Your task to perform on an android device: open app "Truecaller" (install if not already installed) Image 0: 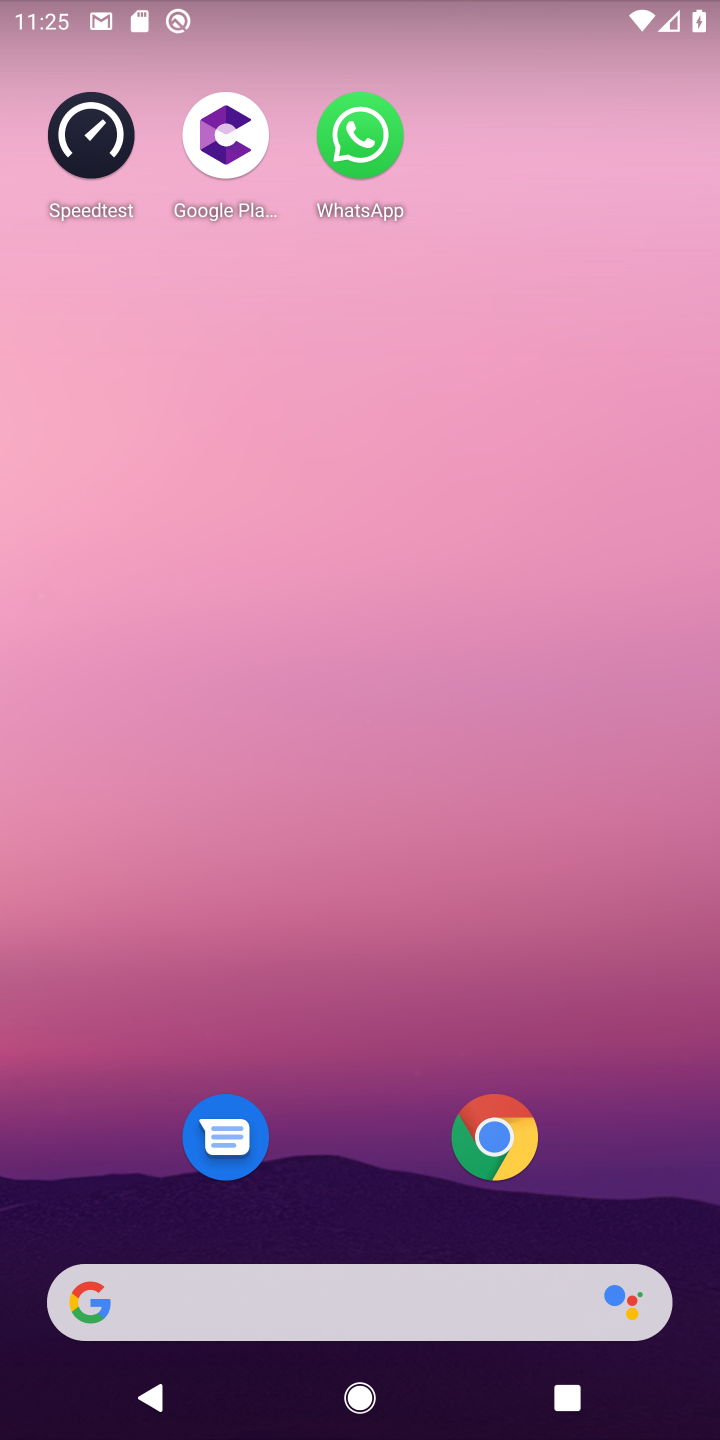
Step 0: drag from (662, 1094) to (519, 171)
Your task to perform on an android device: open app "Truecaller" (install if not already installed) Image 1: 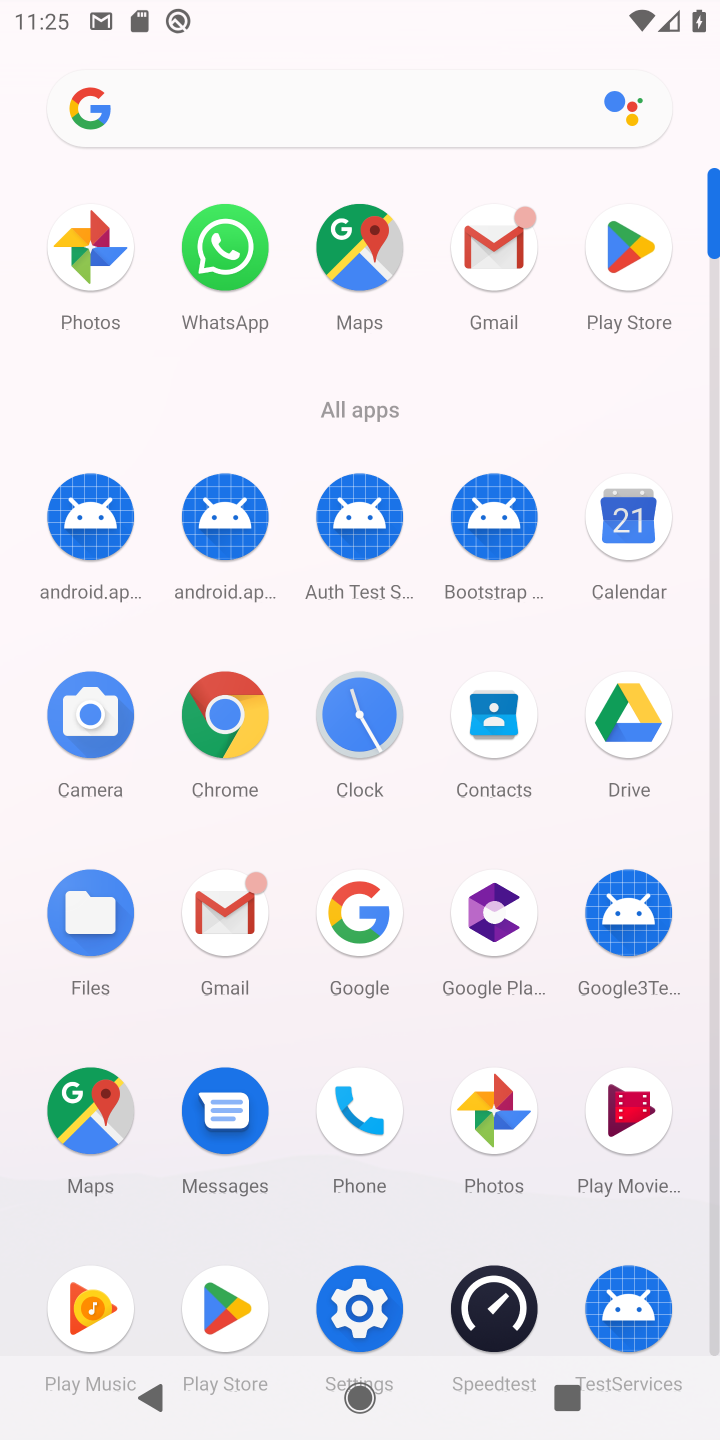
Step 1: click (220, 1307)
Your task to perform on an android device: open app "Truecaller" (install if not already installed) Image 2: 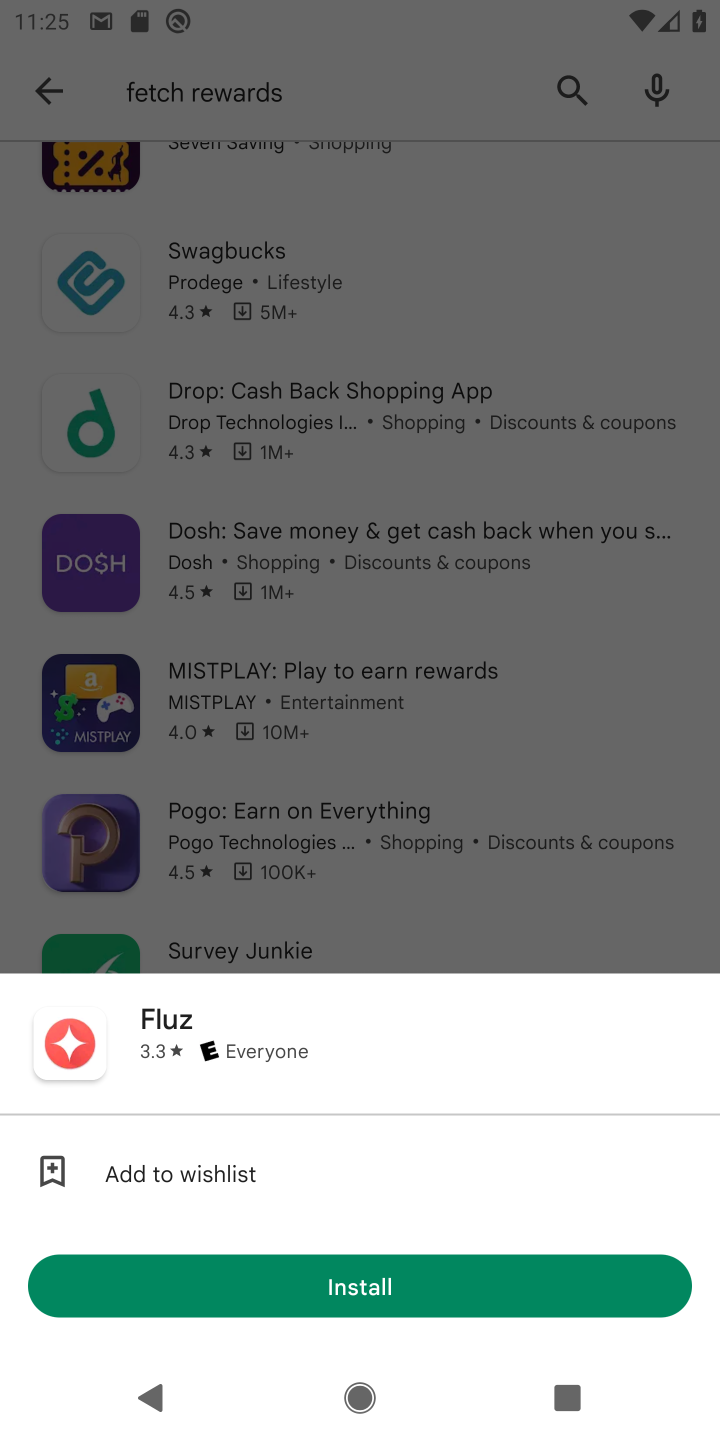
Step 2: click (579, 78)
Your task to perform on an android device: open app "Truecaller" (install if not already installed) Image 3: 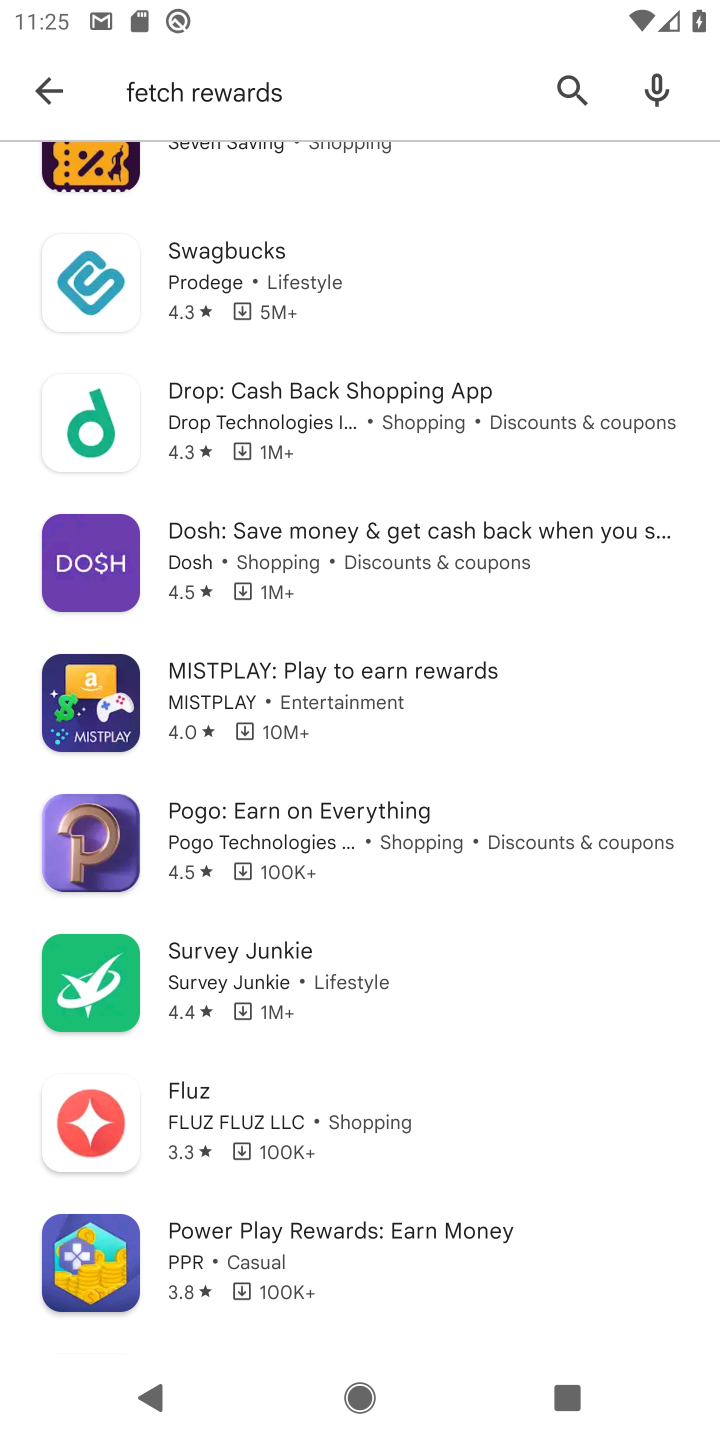
Step 3: click (571, 86)
Your task to perform on an android device: open app "Truecaller" (install if not already installed) Image 4: 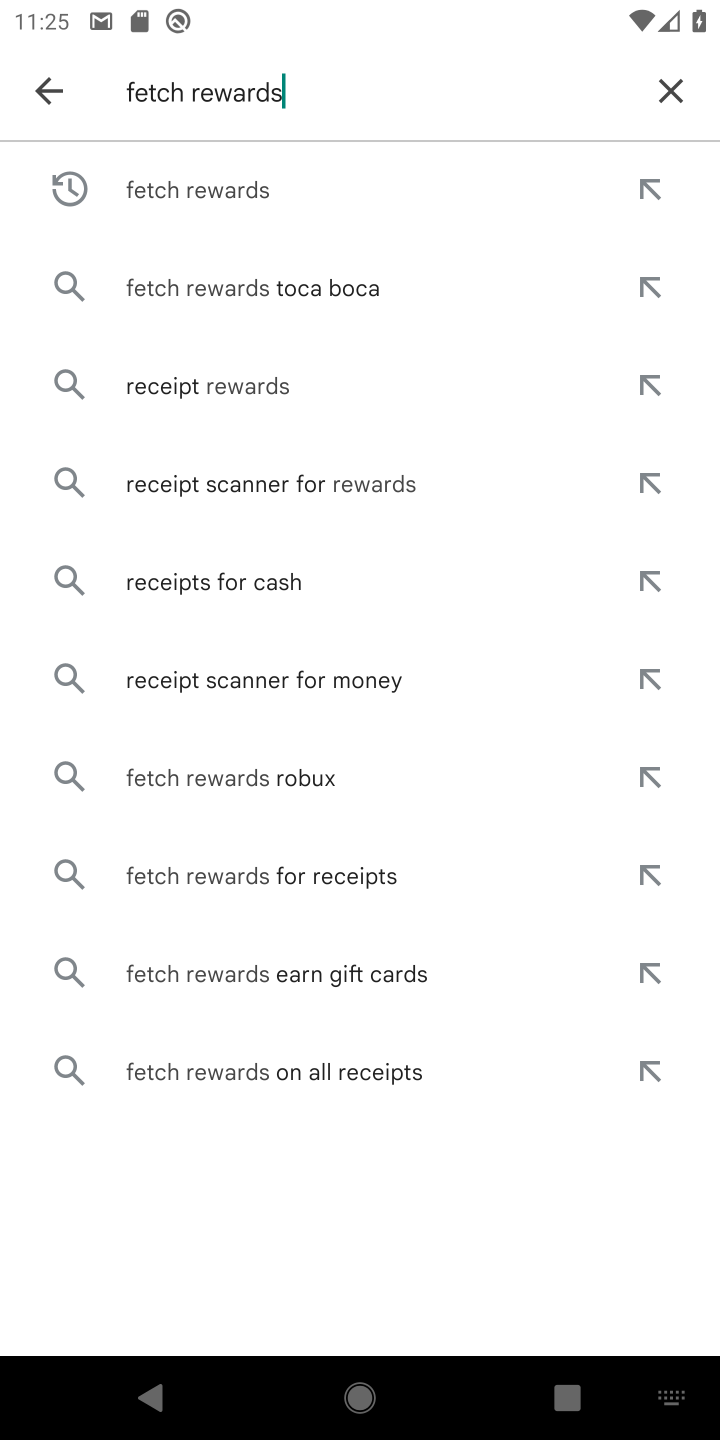
Step 4: click (678, 90)
Your task to perform on an android device: open app "Truecaller" (install if not already installed) Image 5: 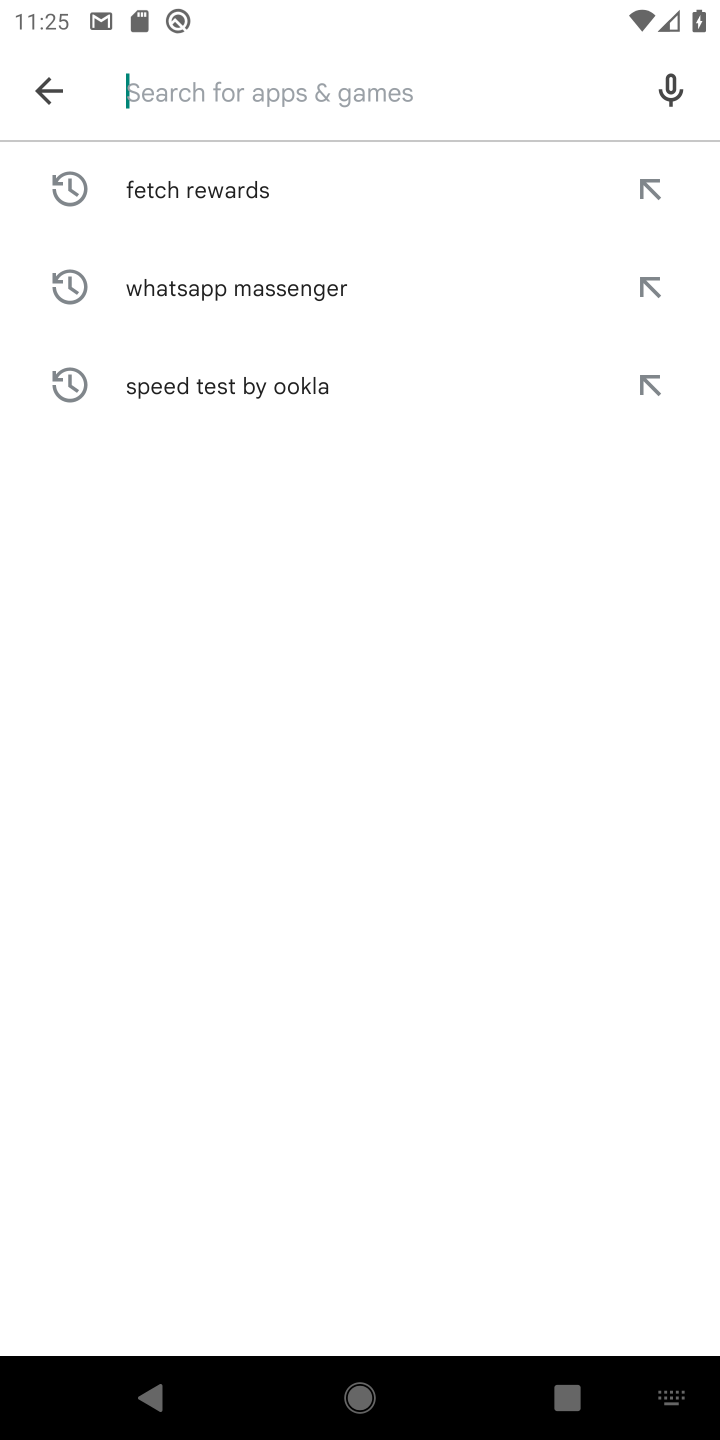
Step 5: type "Truecaller"
Your task to perform on an android device: open app "Truecaller" (install if not already installed) Image 6: 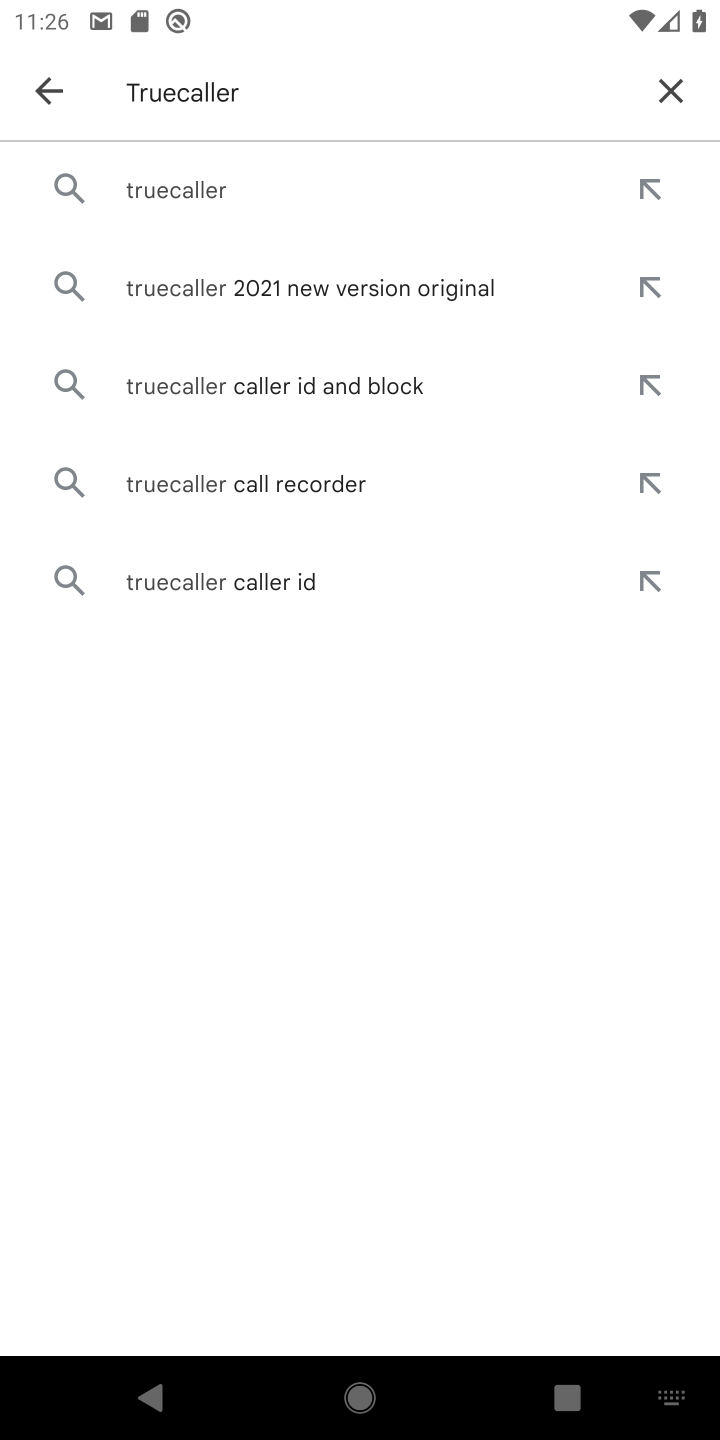
Step 6: click (187, 194)
Your task to perform on an android device: open app "Truecaller" (install if not already installed) Image 7: 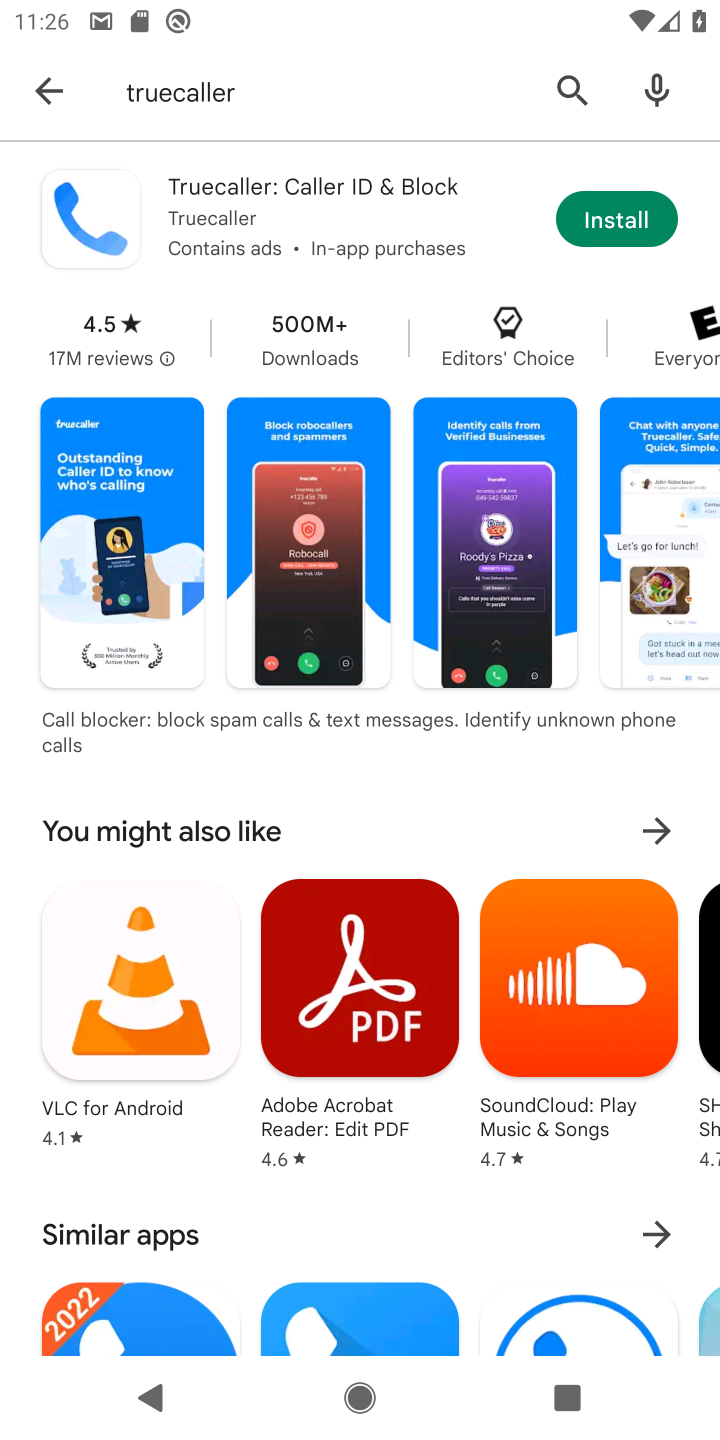
Step 7: click (609, 214)
Your task to perform on an android device: open app "Truecaller" (install if not already installed) Image 8: 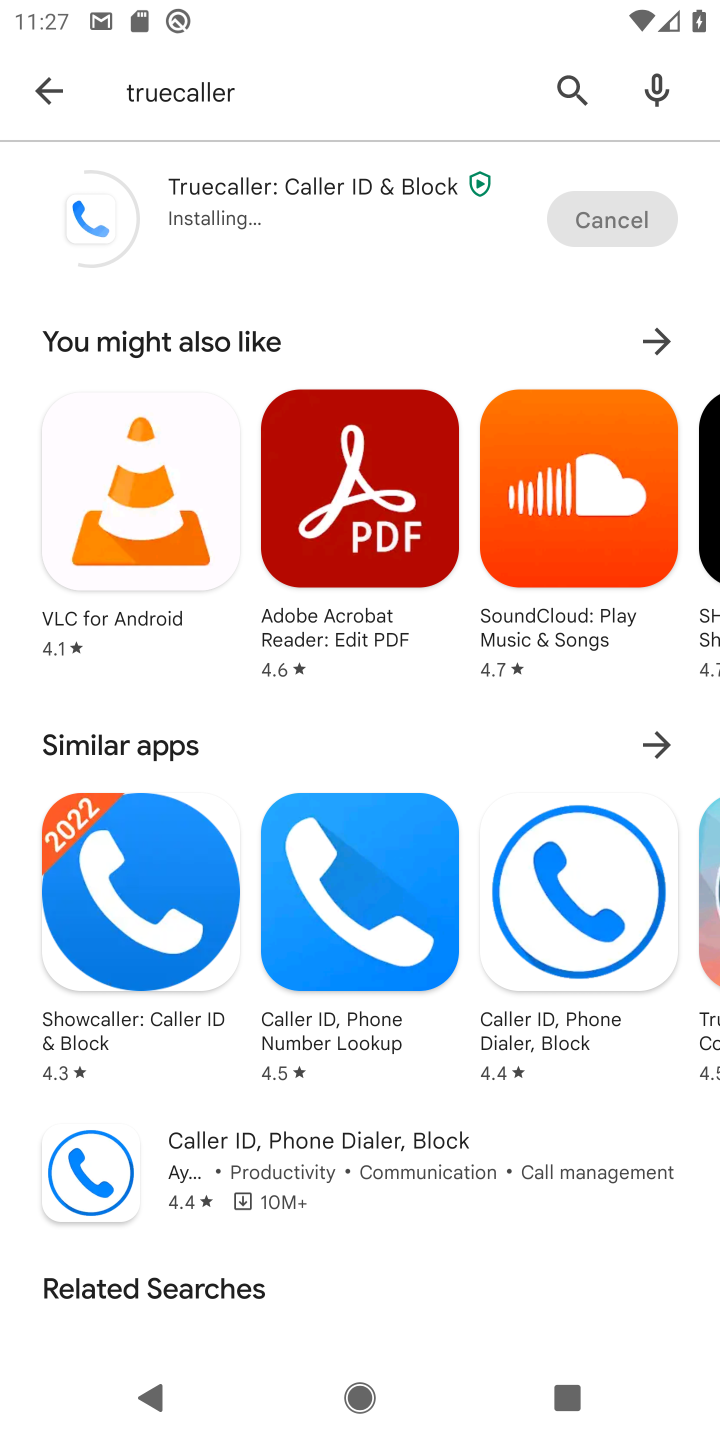
Step 8: click (198, 210)
Your task to perform on an android device: open app "Truecaller" (install if not already installed) Image 9: 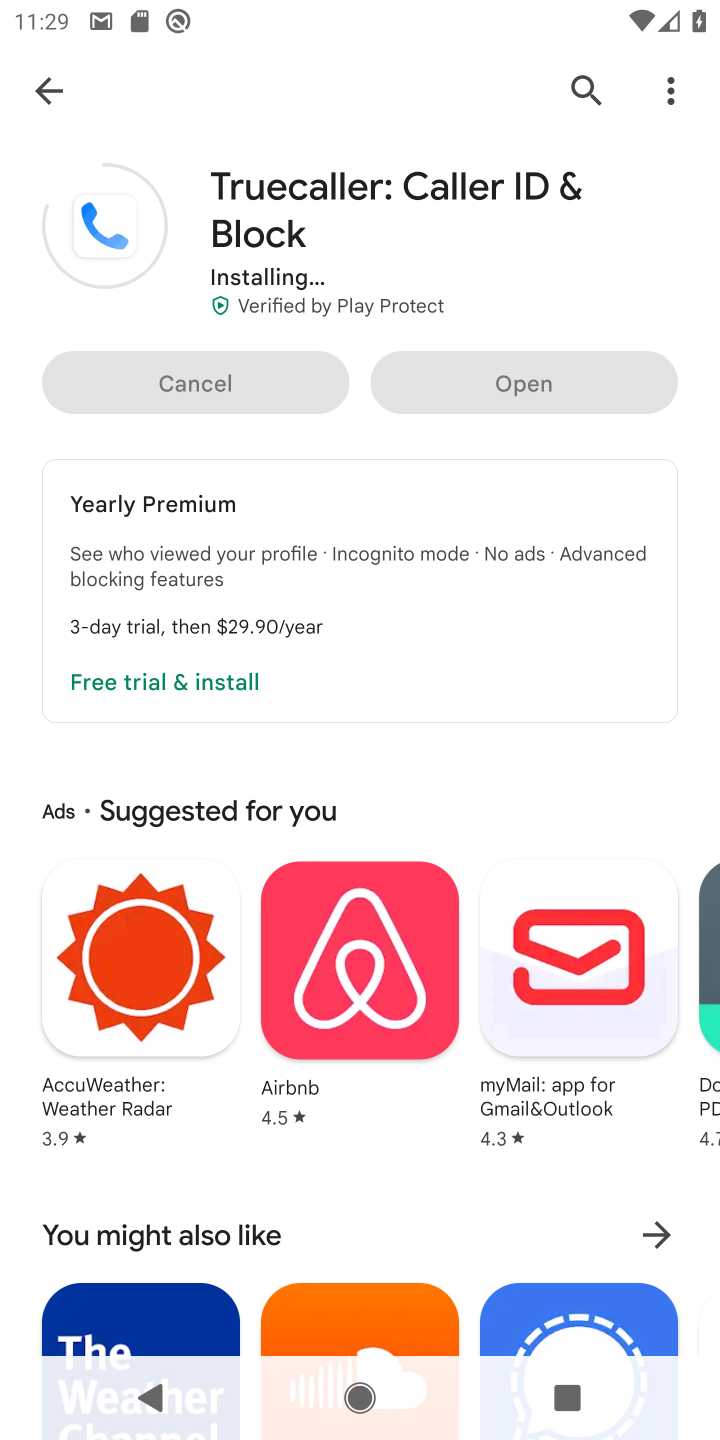
Step 9: click (331, 468)
Your task to perform on an android device: open app "Truecaller" (install if not already installed) Image 10: 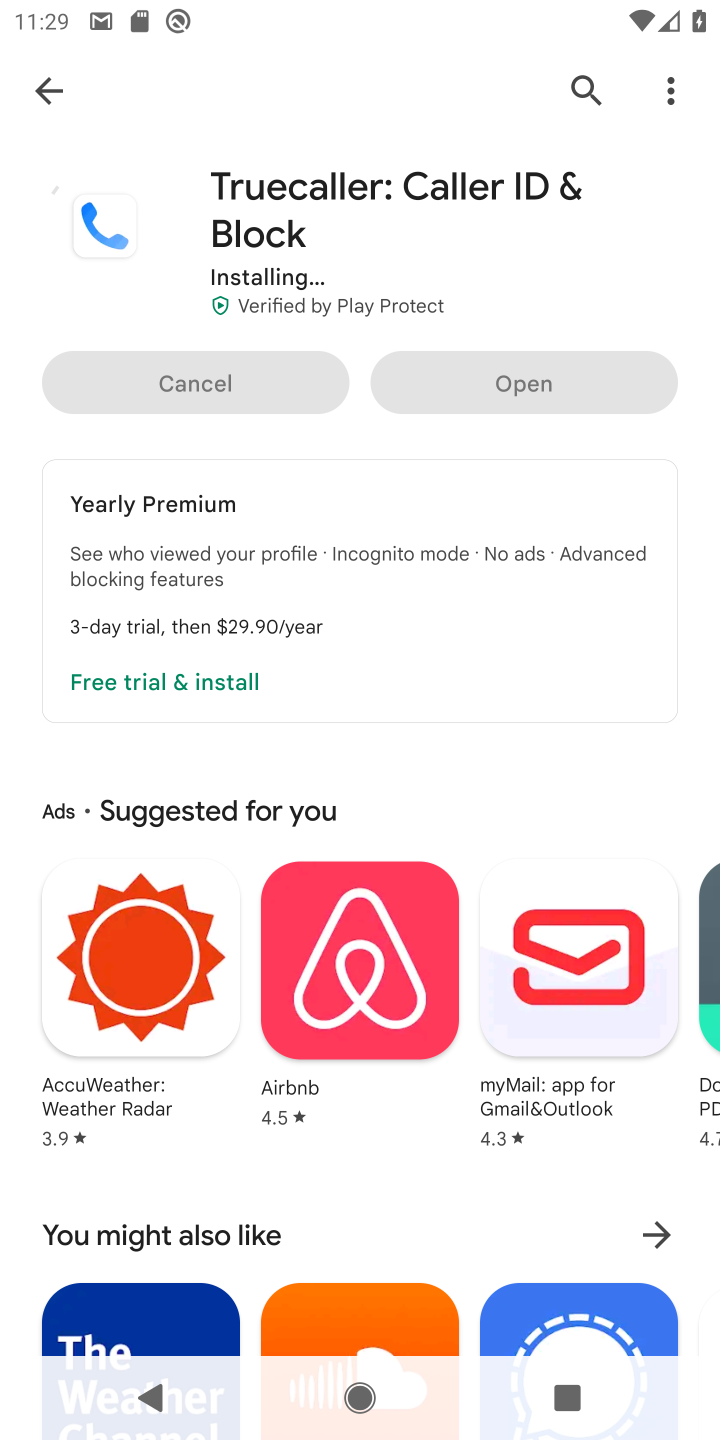
Step 10: drag from (382, 534) to (360, 708)
Your task to perform on an android device: open app "Truecaller" (install if not already installed) Image 11: 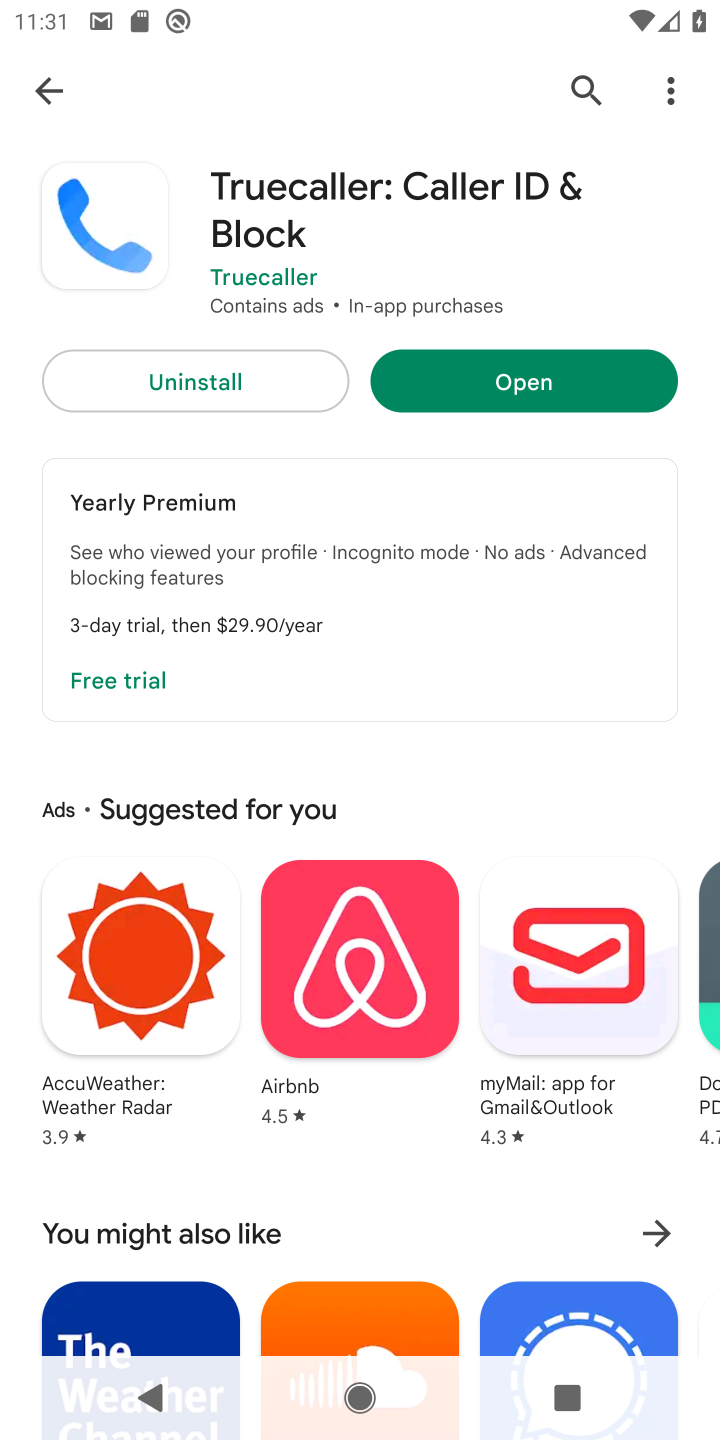
Step 11: click (520, 387)
Your task to perform on an android device: open app "Truecaller" (install if not already installed) Image 12: 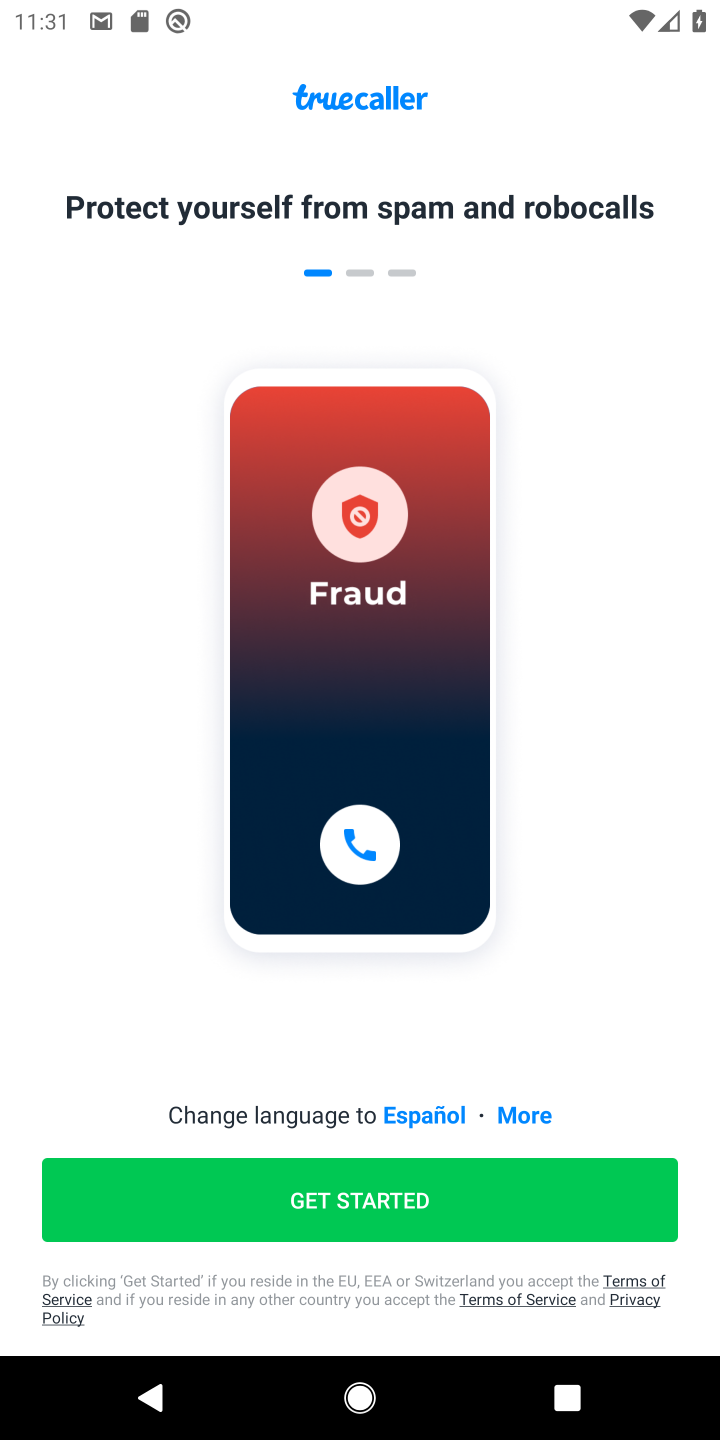
Step 12: task complete